Your task to perform on an android device: all mails in gmail Image 0: 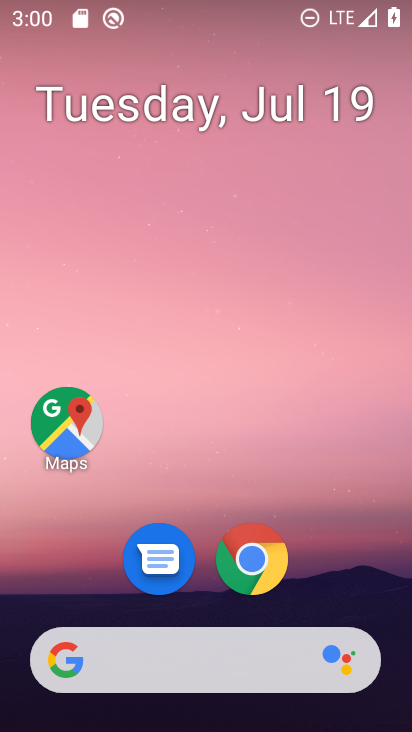
Step 0: drag from (232, 676) to (166, 108)
Your task to perform on an android device: all mails in gmail Image 1: 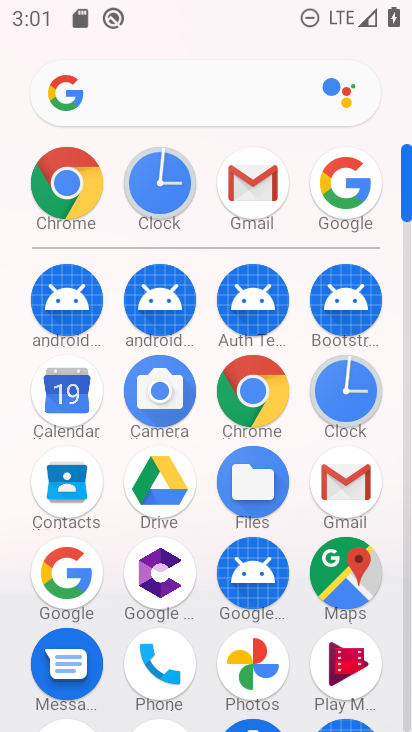
Step 1: click (230, 203)
Your task to perform on an android device: all mails in gmail Image 2: 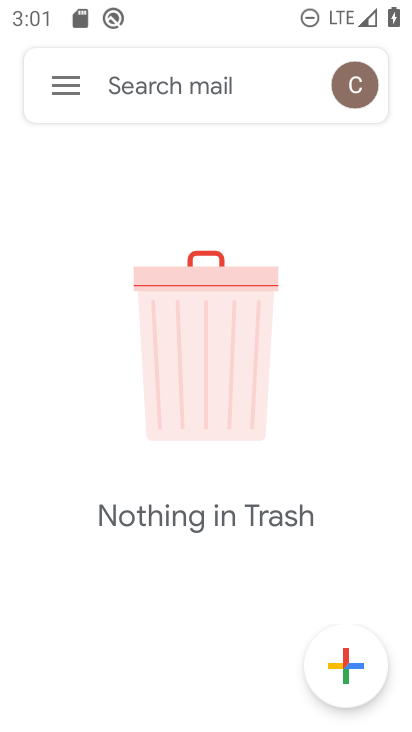
Step 2: click (72, 101)
Your task to perform on an android device: all mails in gmail Image 3: 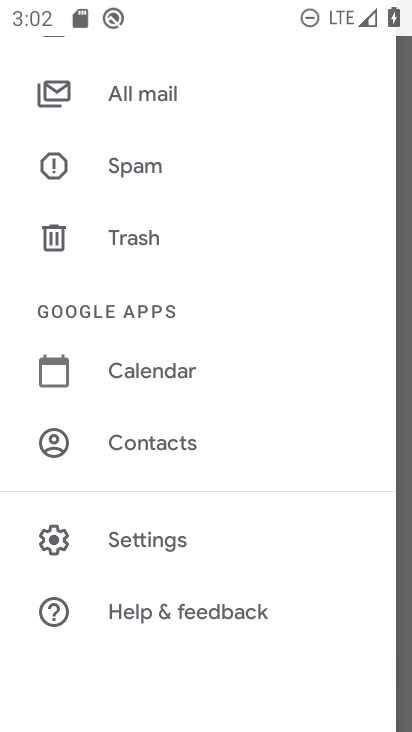
Step 3: click (135, 92)
Your task to perform on an android device: all mails in gmail Image 4: 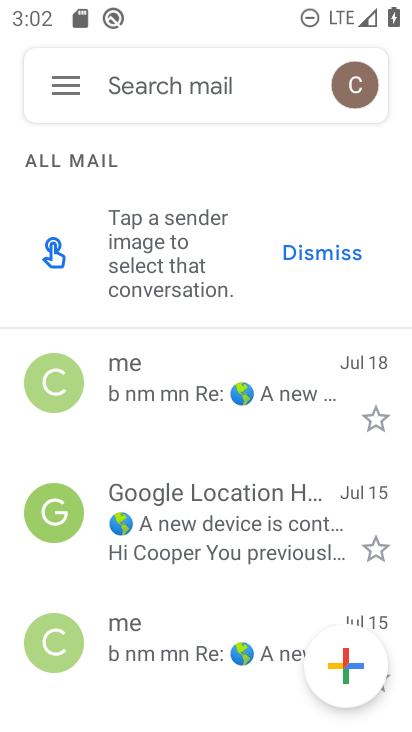
Step 4: task complete